Your task to perform on an android device: Open my contact list Image 0: 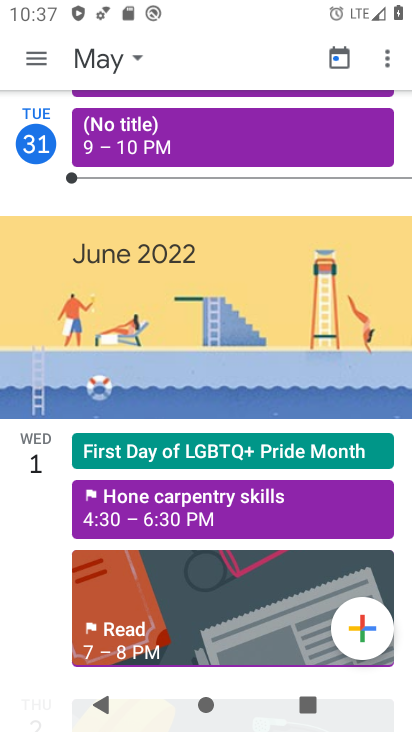
Step 0: press home button
Your task to perform on an android device: Open my contact list Image 1: 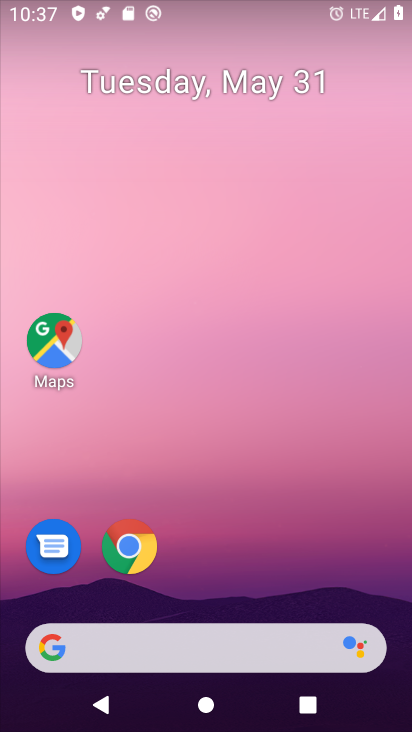
Step 1: drag from (256, 451) to (293, 45)
Your task to perform on an android device: Open my contact list Image 2: 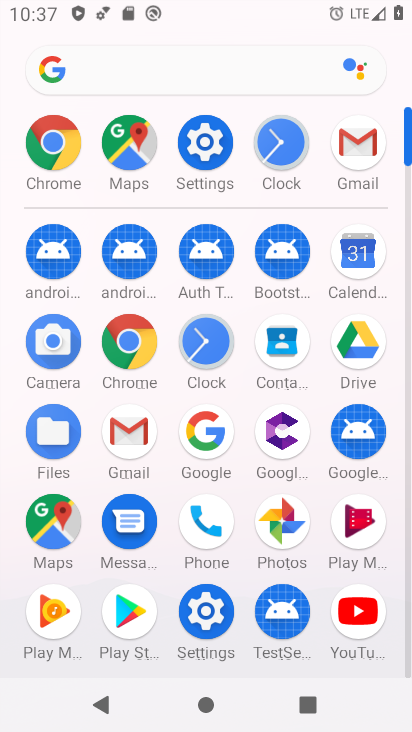
Step 2: click (295, 347)
Your task to perform on an android device: Open my contact list Image 3: 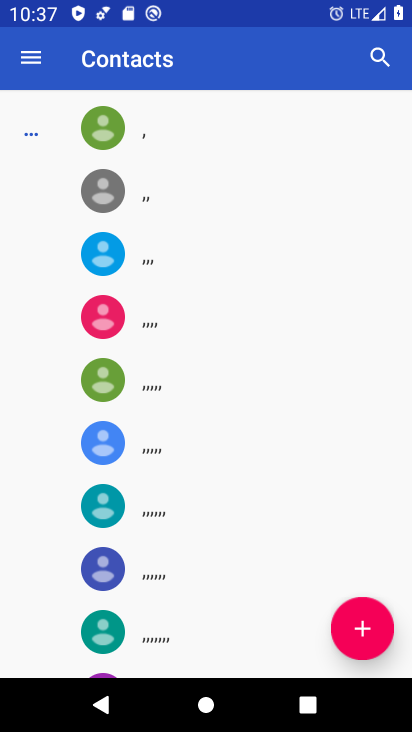
Step 3: task complete